Your task to perform on an android device: change alarm snooze length Image 0: 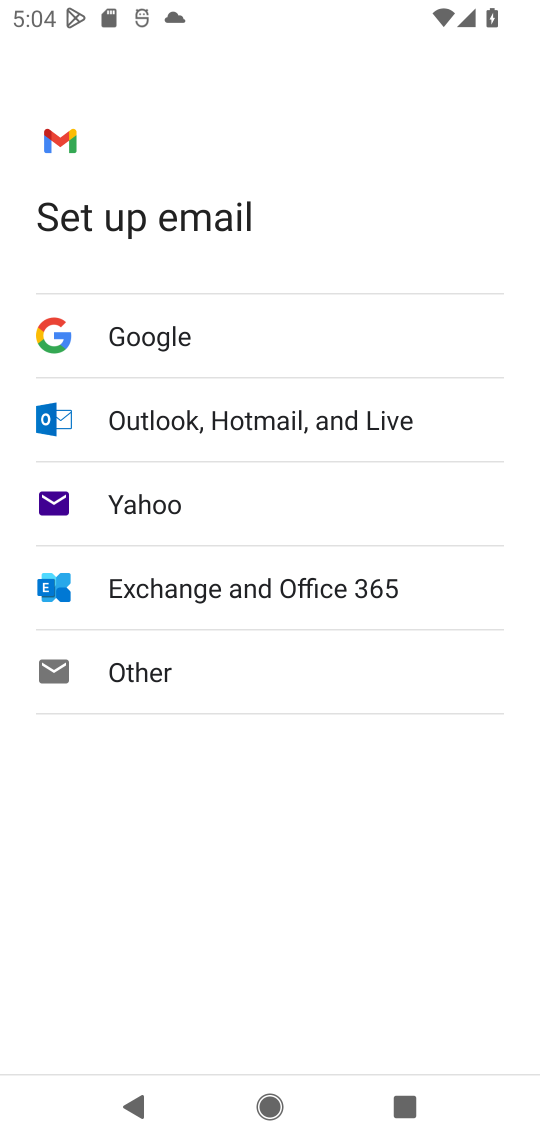
Step 0: press home button
Your task to perform on an android device: change alarm snooze length Image 1: 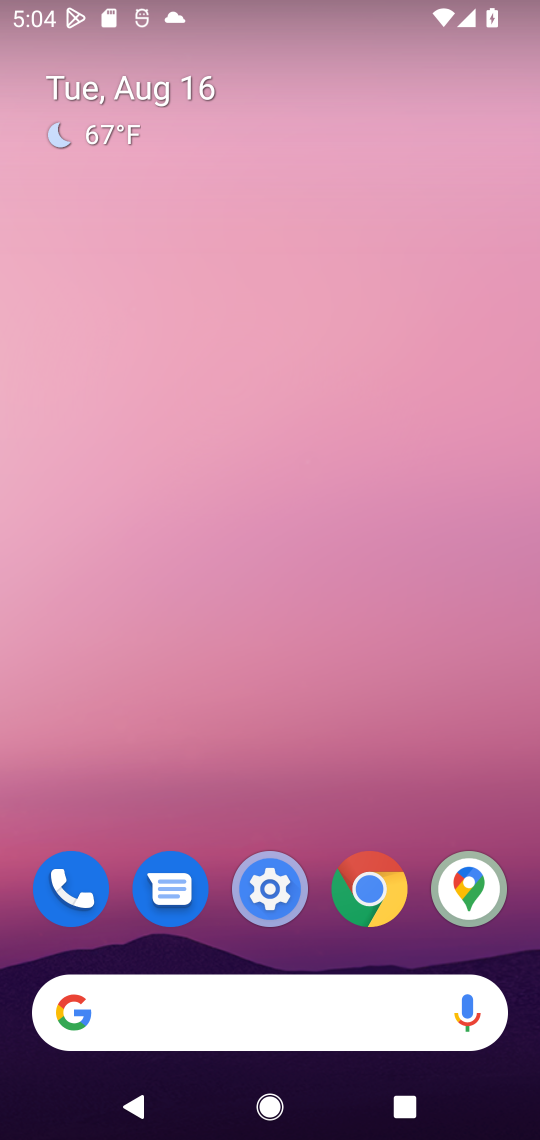
Step 1: drag from (390, 643) to (364, 380)
Your task to perform on an android device: change alarm snooze length Image 2: 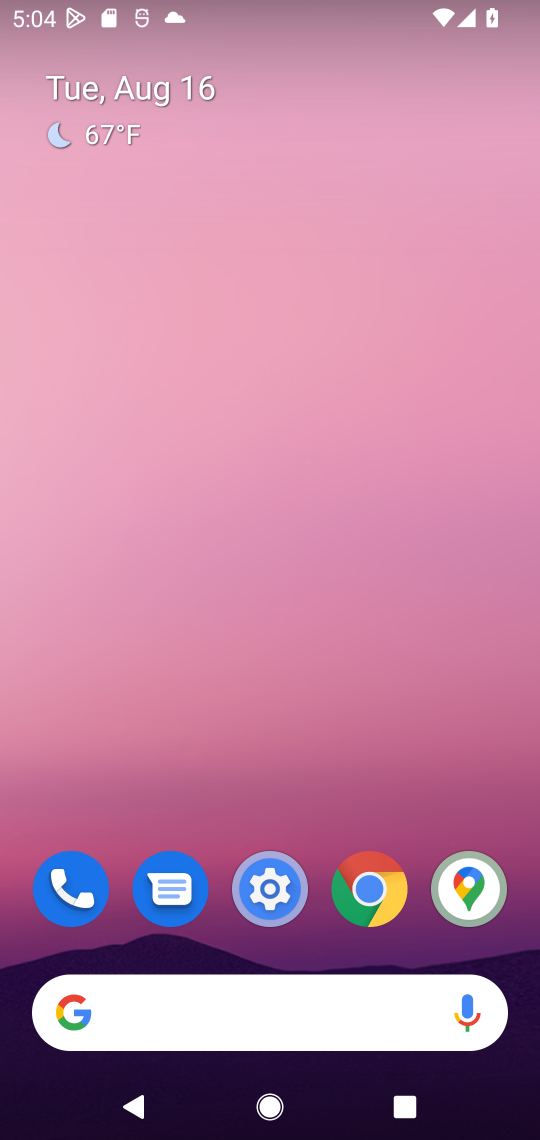
Step 2: drag from (270, 699) to (290, 215)
Your task to perform on an android device: change alarm snooze length Image 3: 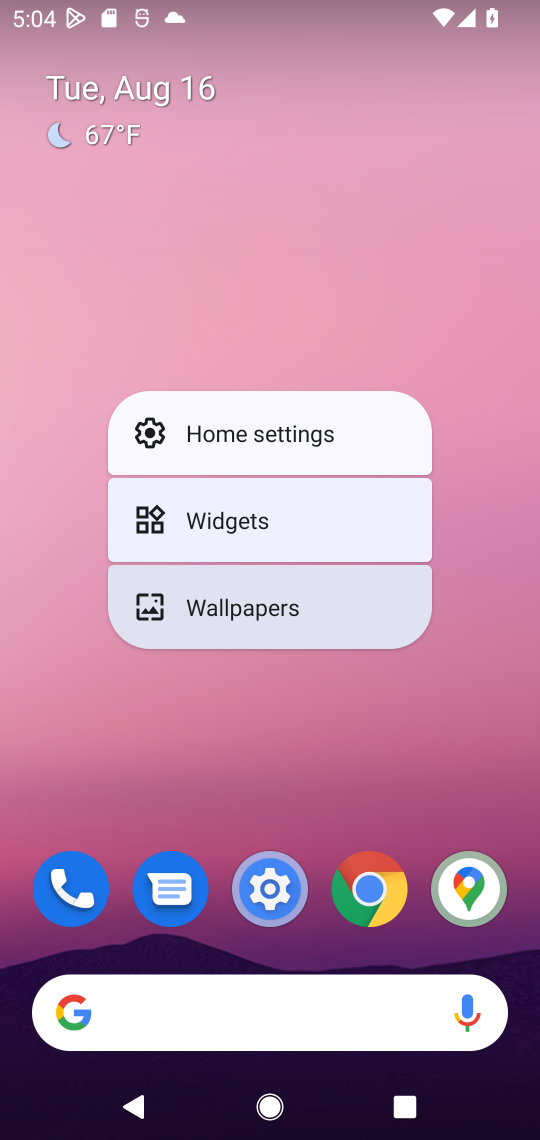
Step 3: click (322, 751)
Your task to perform on an android device: change alarm snooze length Image 4: 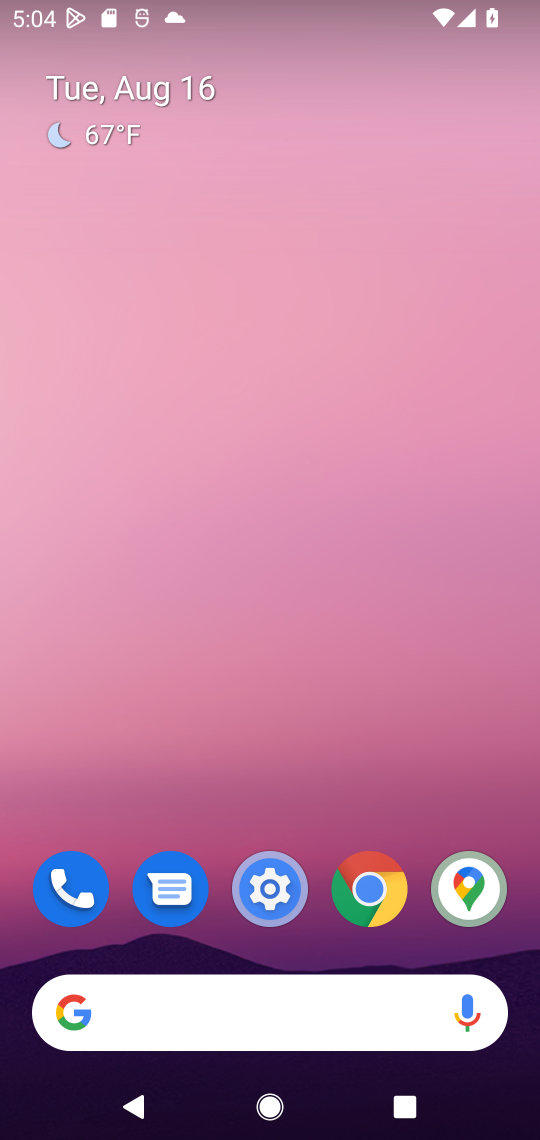
Step 4: drag from (299, 737) to (316, 138)
Your task to perform on an android device: change alarm snooze length Image 5: 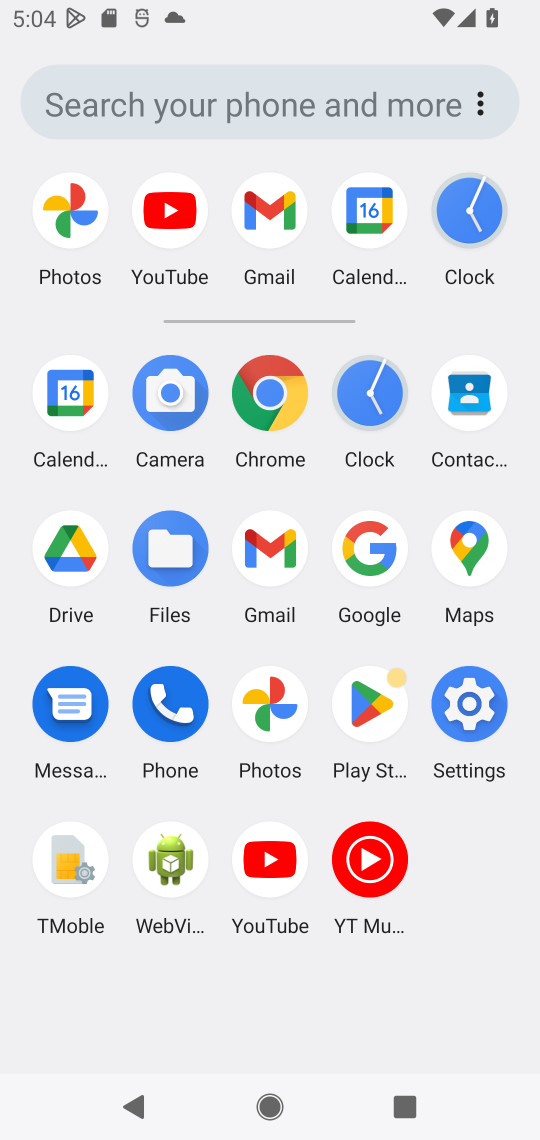
Step 5: click (457, 226)
Your task to perform on an android device: change alarm snooze length Image 6: 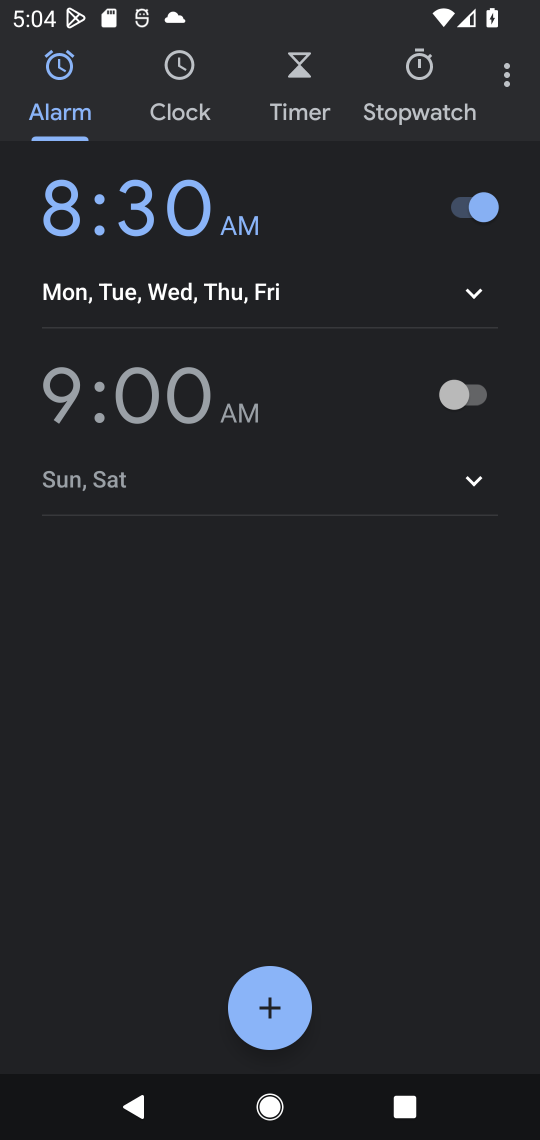
Step 6: click (494, 76)
Your task to perform on an android device: change alarm snooze length Image 7: 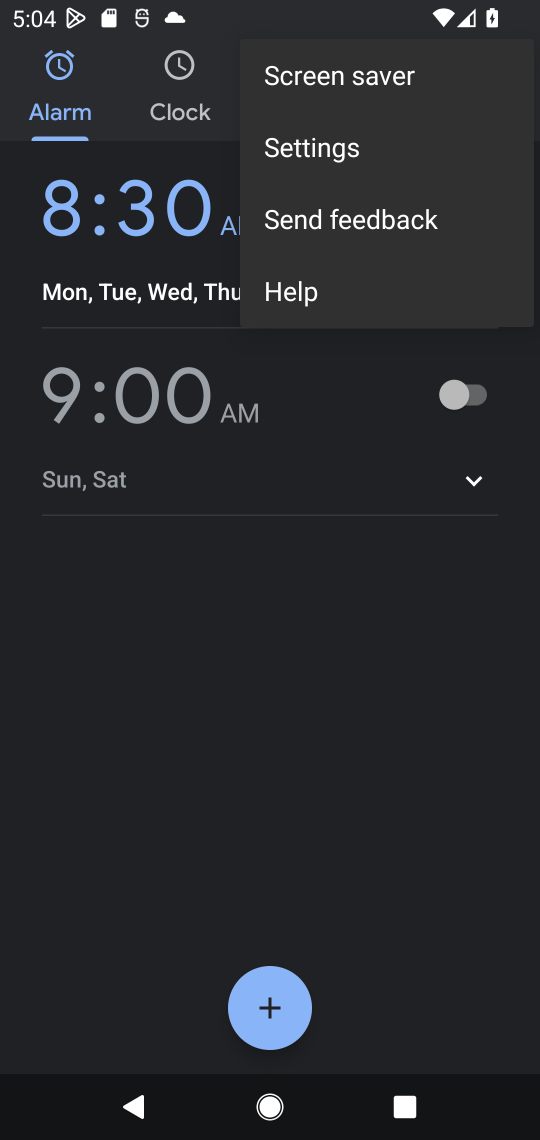
Step 7: click (351, 141)
Your task to perform on an android device: change alarm snooze length Image 8: 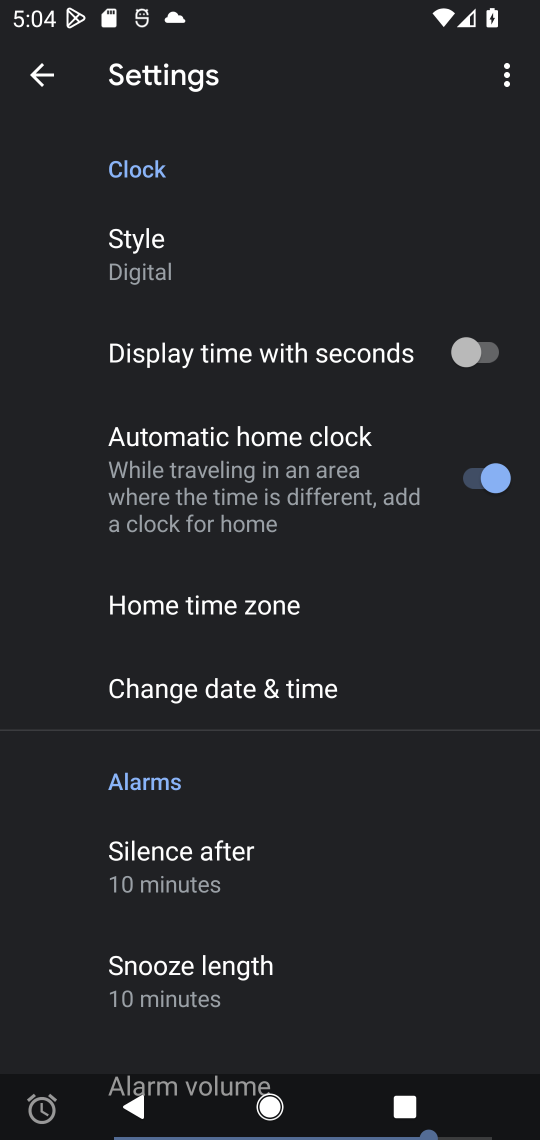
Step 8: click (195, 993)
Your task to perform on an android device: change alarm snooze length Image 9: 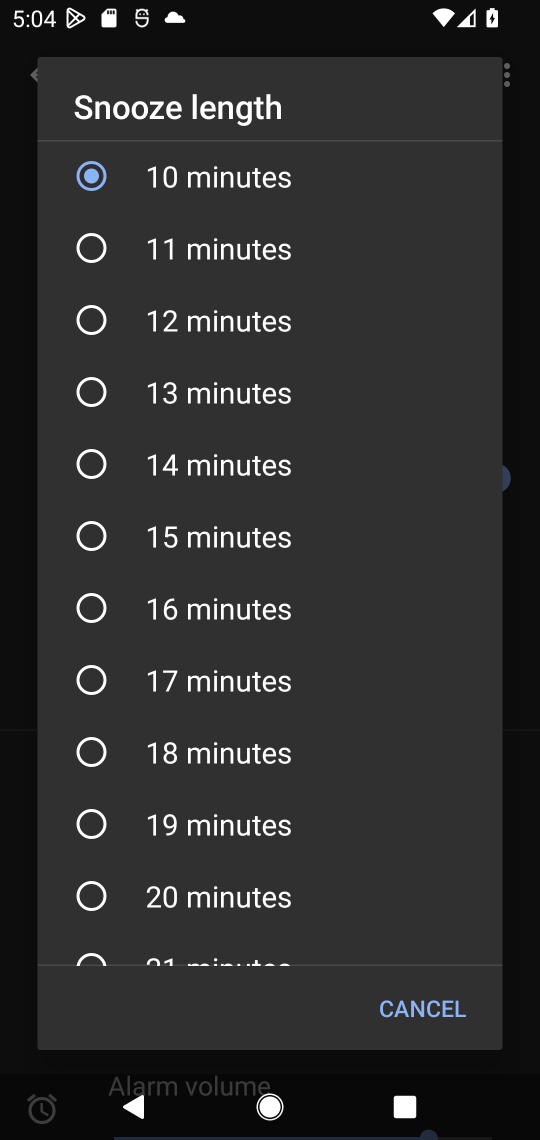
Step 9: click (288, 568)
Your task to perform on an android device: change alarm snooze length Image 10: 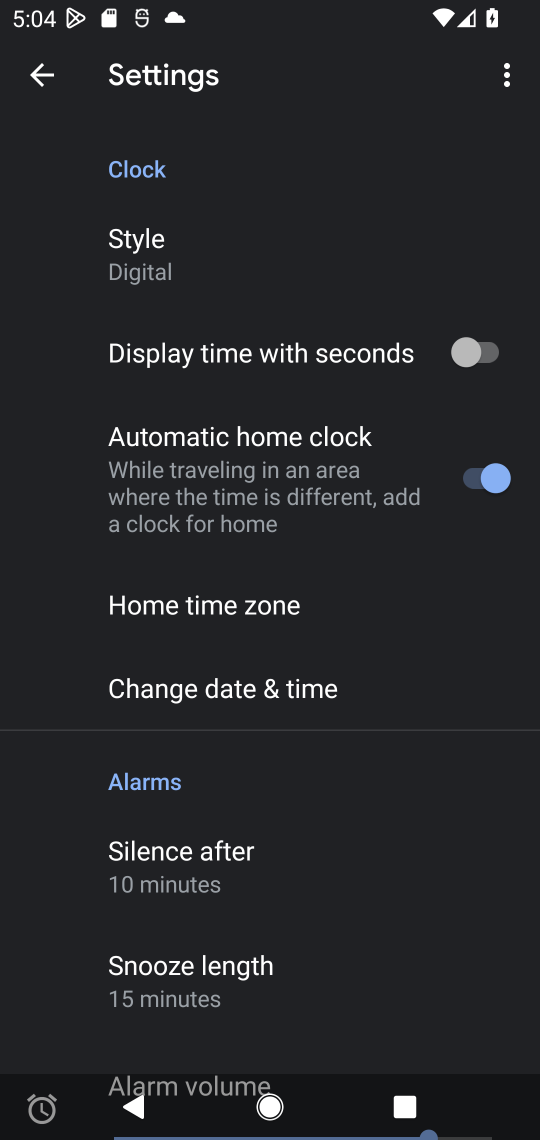
Step 10: task complete